Your task to perform on an android device: check storage Image 0: 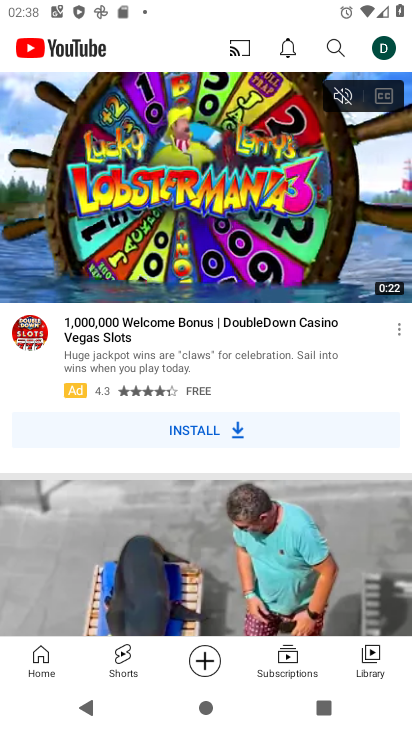
Step 0: press home button
Your task to perform on an android device: check storage Image 1: 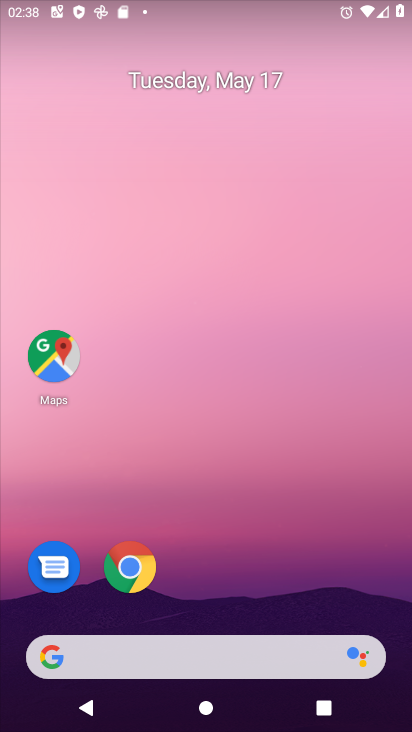
Step 1: drag from (394, 616) to (348, 112)
Your task to perform on an android device: check storage Image 2: 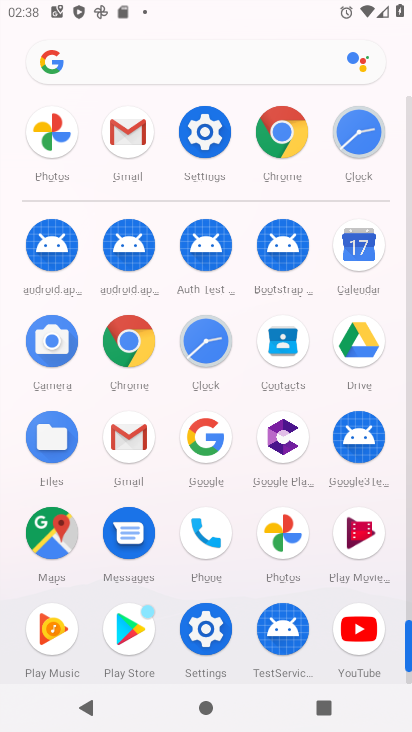
Step 2: click (410, 681)
Your task to perform on an android device: check storage Image 3: 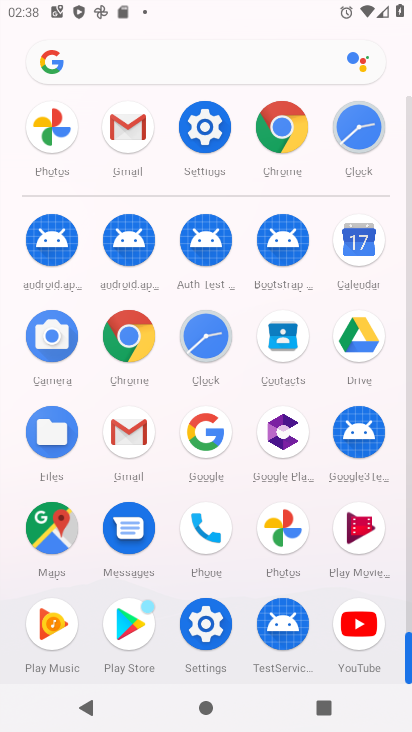
Step 3: click (201, 622)
Your task to perform on an android device: check storage Image 4: 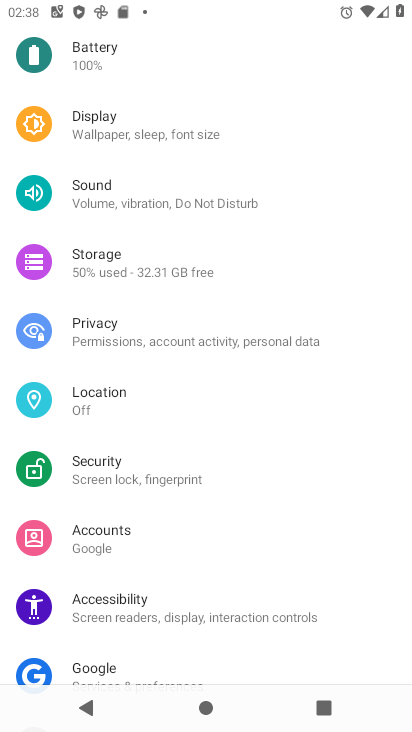
Step 4: click (95, 258)
Your task to perform on an android device: check storage Image 5: 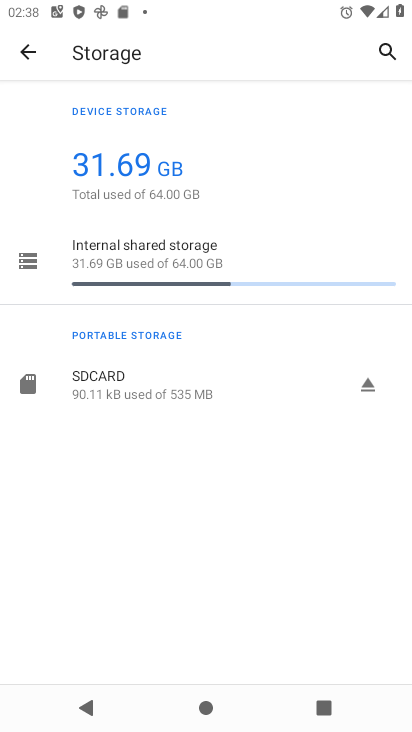
Step 5: task complete